Your task to perform on an android device: Search for the best rated headphones on amazon.com Image 0: 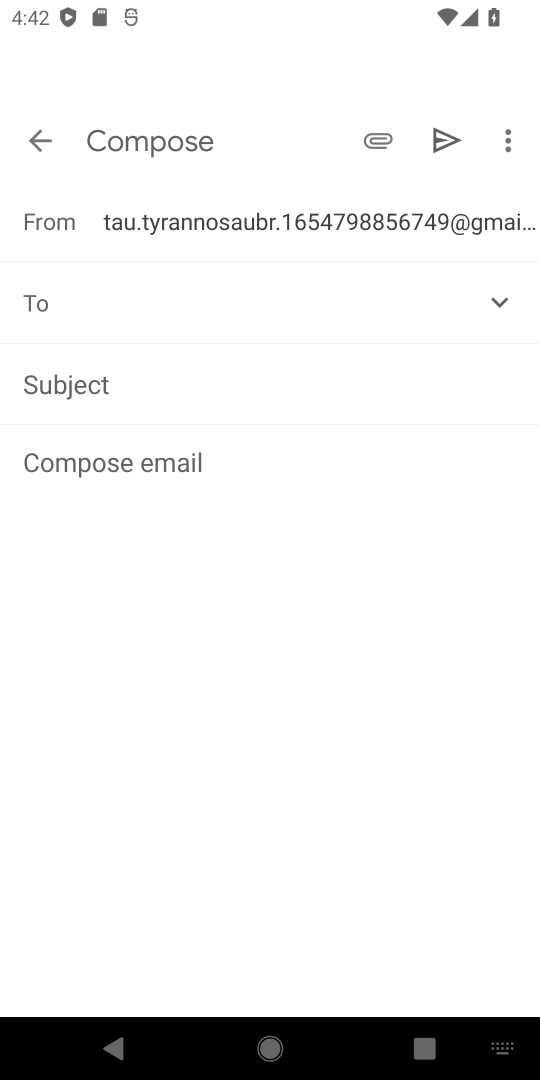
Step 0: press home button
Your task to perform on an android device: Search for the best rated headphones on amazon.com Image 1: 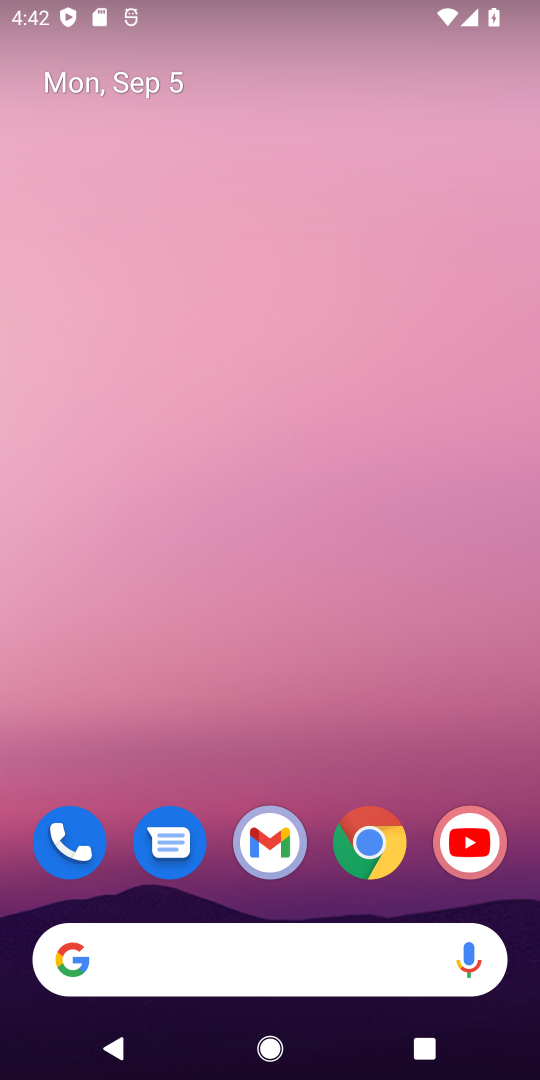
Step 1: click (373, 848)
Your task to perform on an android device: Search for the best rated headphones on amazon.com Image 2: 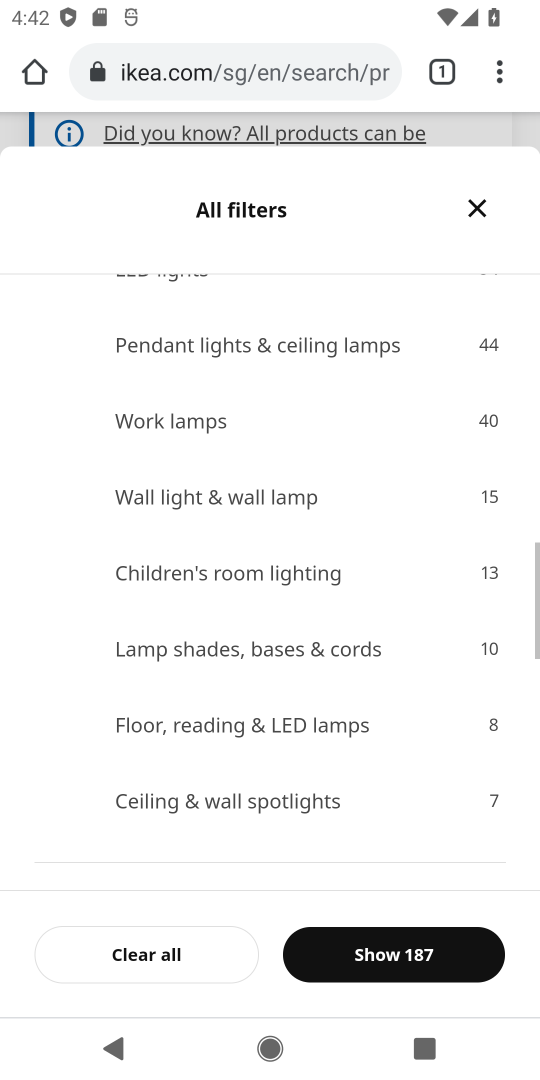
Step 2: click (279, 80)
Your task to perform on an android device: Search for the best rated headphones on amazon.com Image 3: 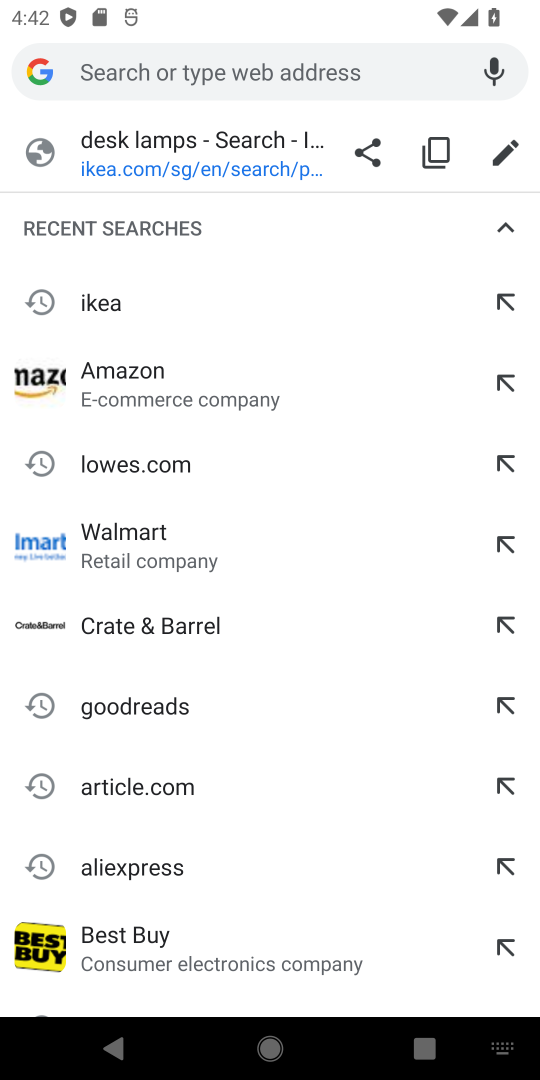
Step 3: type "amazon.com"
Your task to perform on an android device: Search for the best rated headphones on amazon.com Image 4: 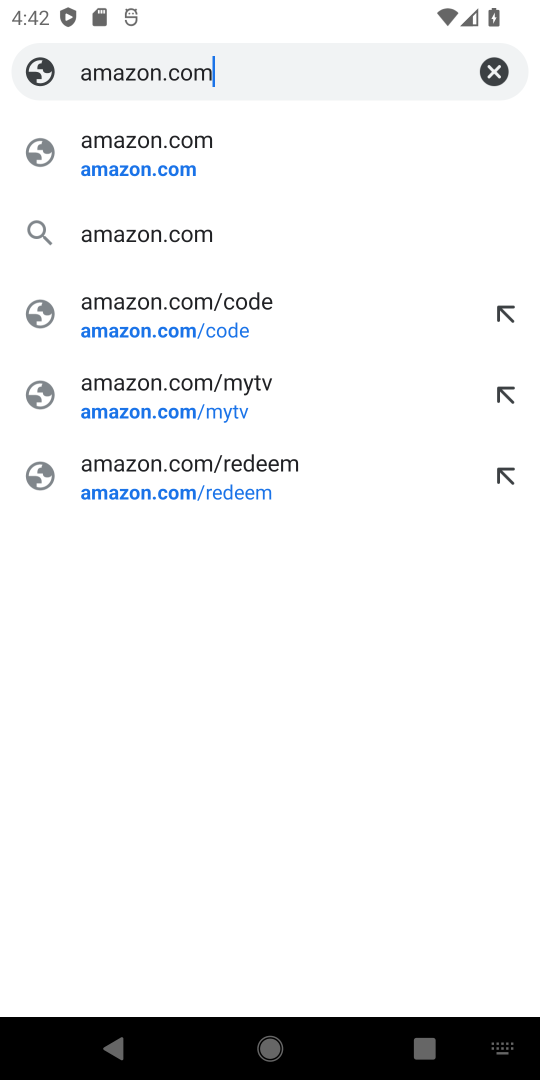
Step 4: click (151, 233)
Your task to perform on an android device: Search for the best rated headphones on amazon.com Image 5: 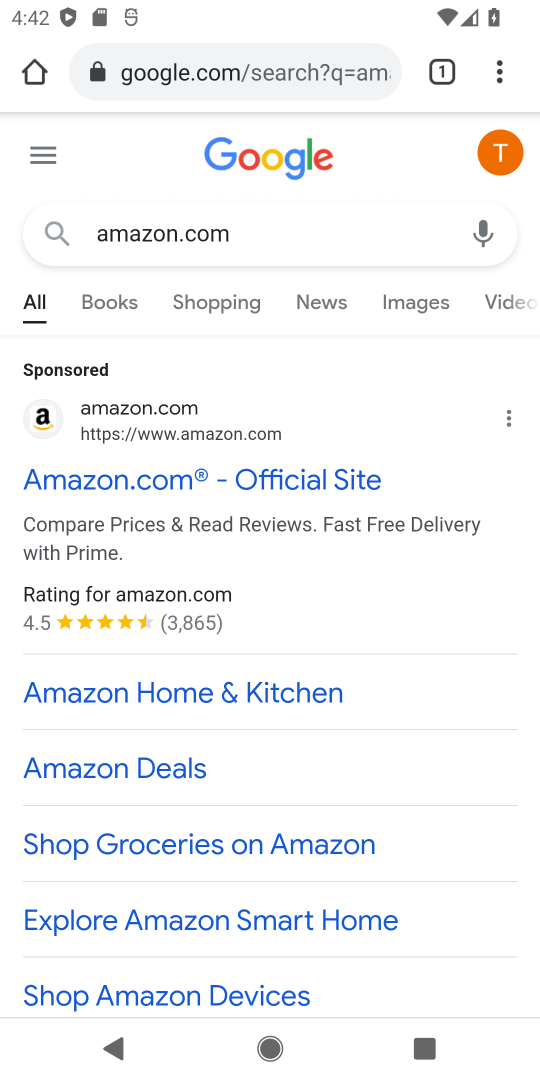
Step 5: drag from (333, 871) to (352, 372)
Your task to perform on an android device: Search for the best rated headphones on amazon.com Image 6: 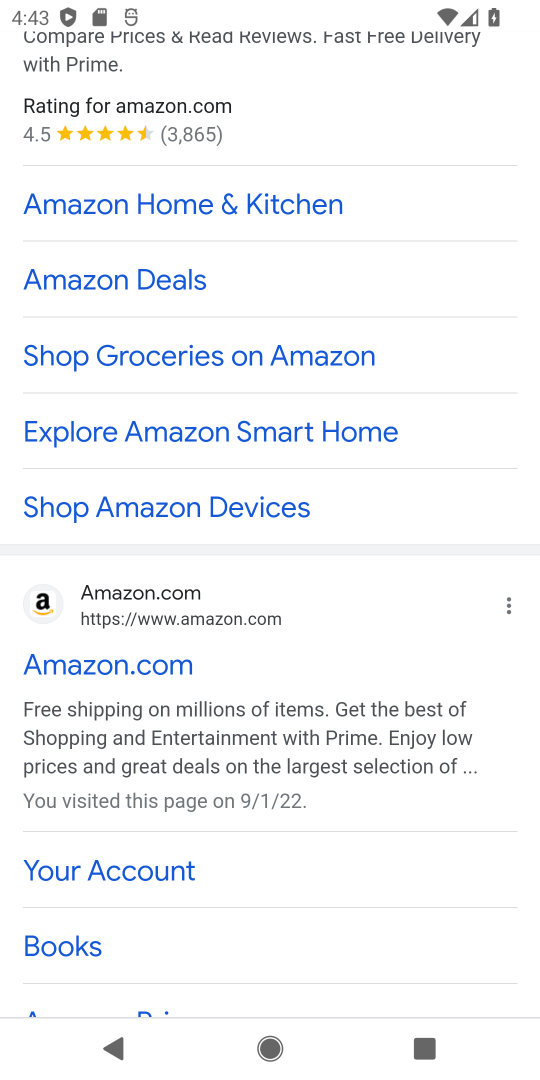
Step 6: click (140, 675)
Your task to perform on an android device: Search for the best rated headphones on amazon.com Image 7: 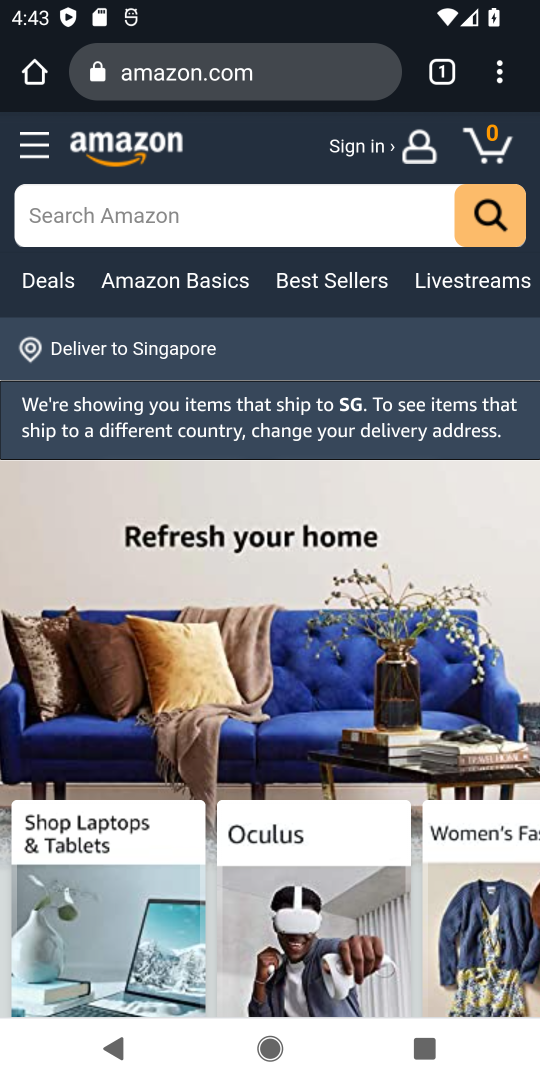
Step 7: click (293, 214)
Your task to perform on an android device: Search for the best rated headphones on amazon.com Image 8: 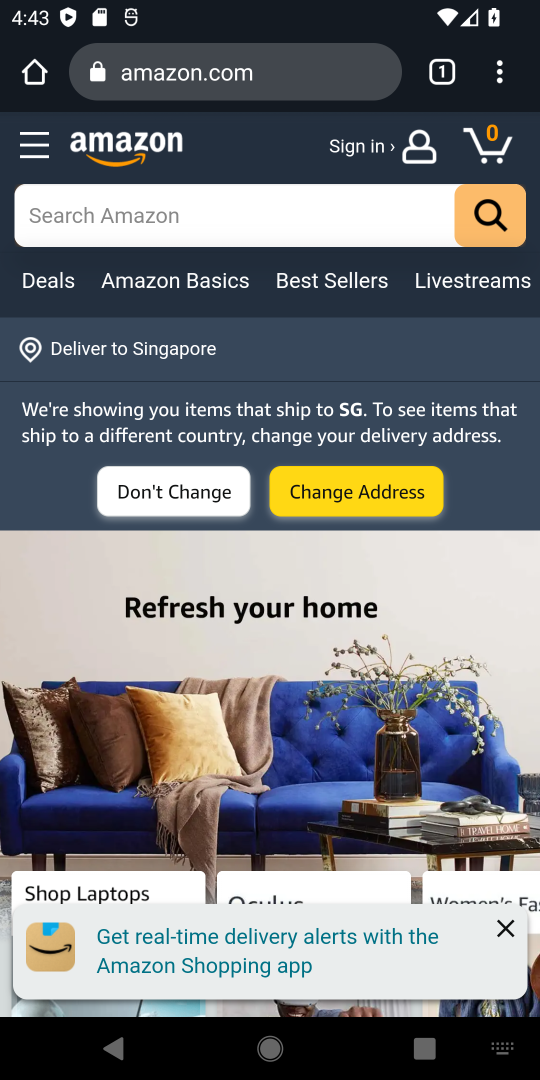
Step 8: type "best rated headphones"
Your task to perform on an android device: Search for the best rated headphones on amazon.com Image 9: 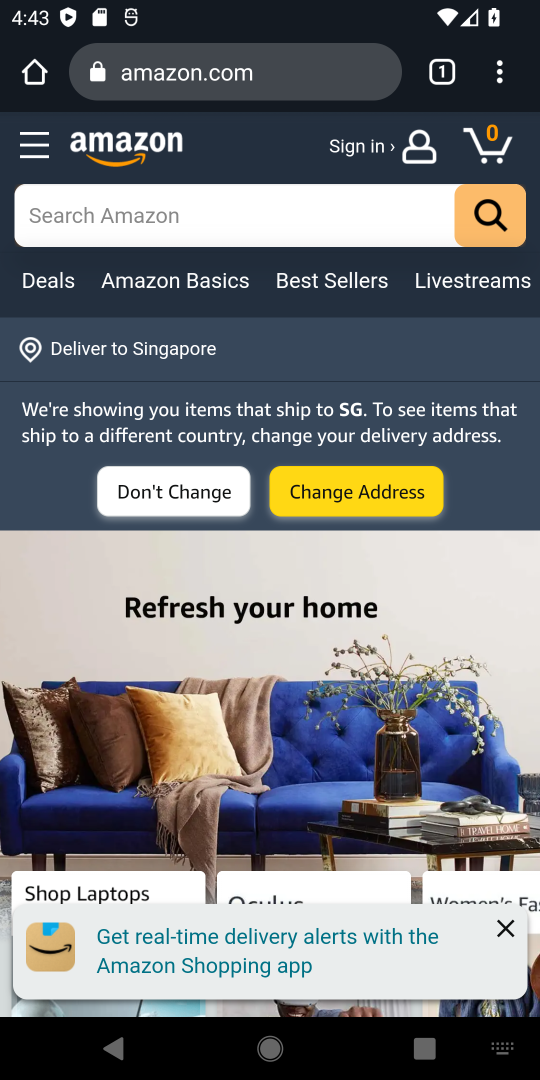
Step 9: click (135, 213)
Your task to perform on an android device: Search for the best rated headphones on amazon.com Image 10: 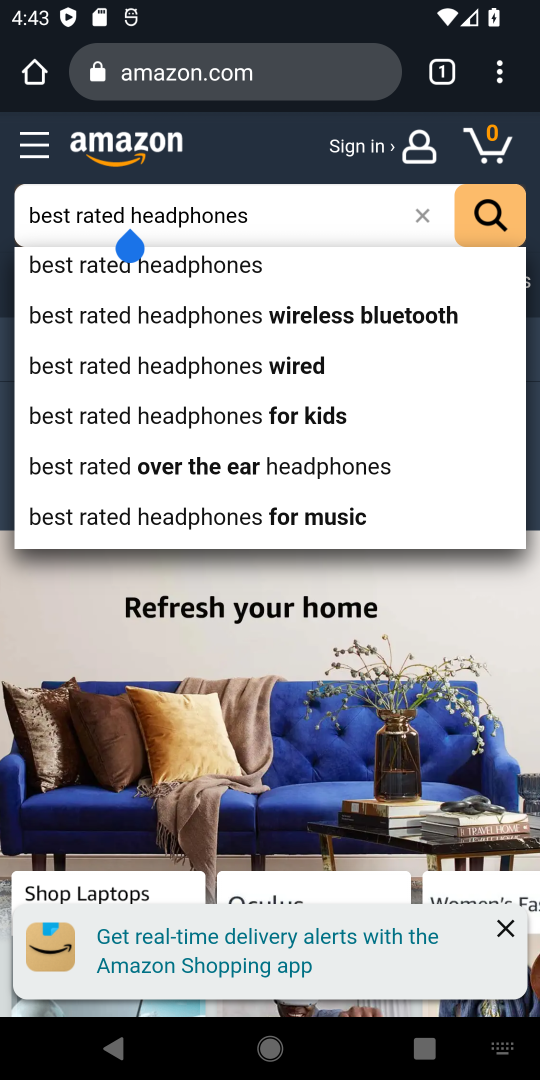
Step 10: click (230, 264)
Your task to perform on an android device: Search for the best rated headphones on amazon.com Image 11: 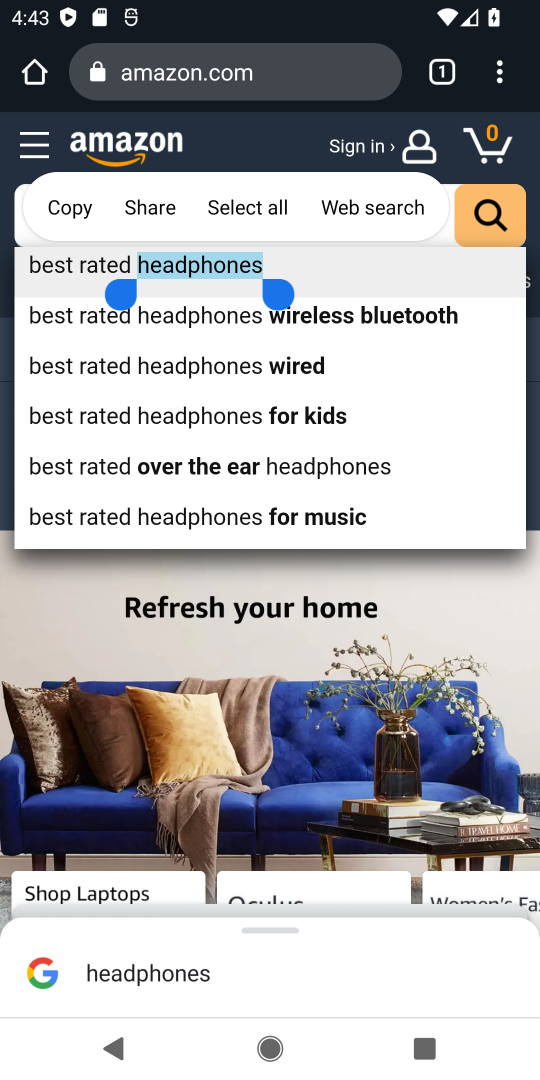
Step 11: click (498, 217)
Your task to perform on an android device: Search for the best rated headphones on amazon.com Image 12: 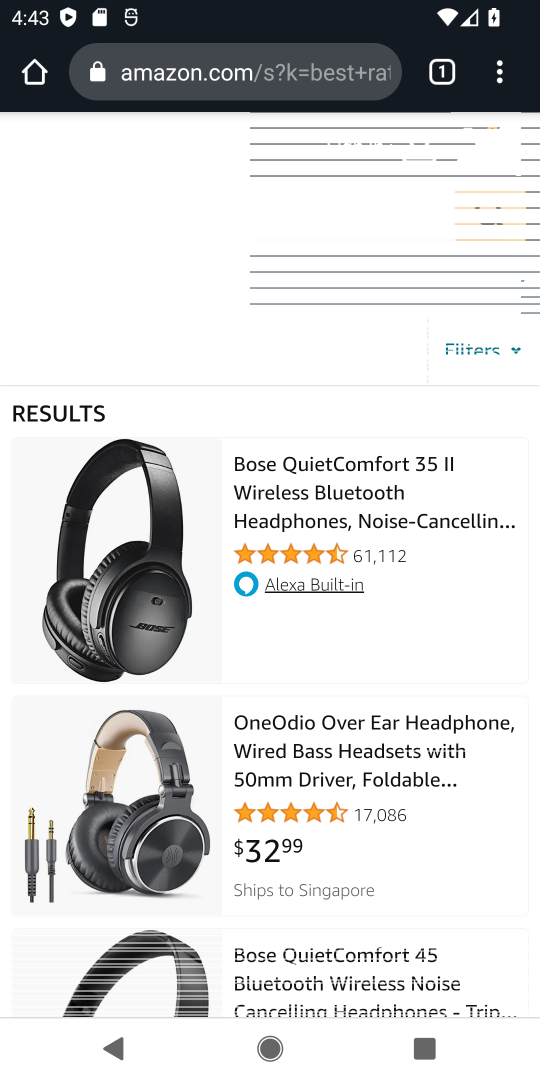
Step 12: task complete